Your task to perform on an android device: clear history in the chrome app Image 0: 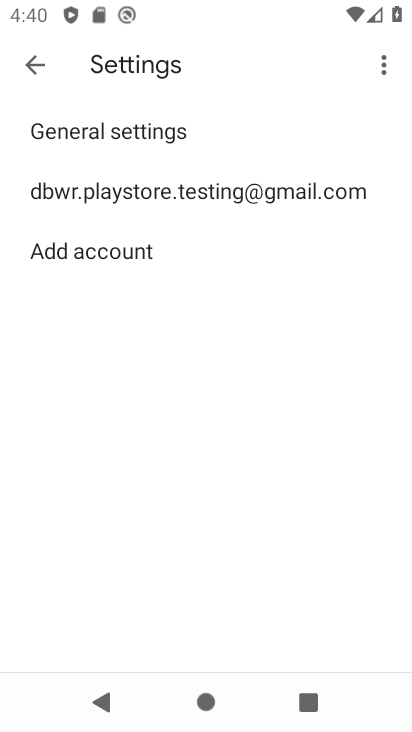
Step 0: click (382, 63)
Your task to perform on an android device: clear history in the chrome app Image 1: 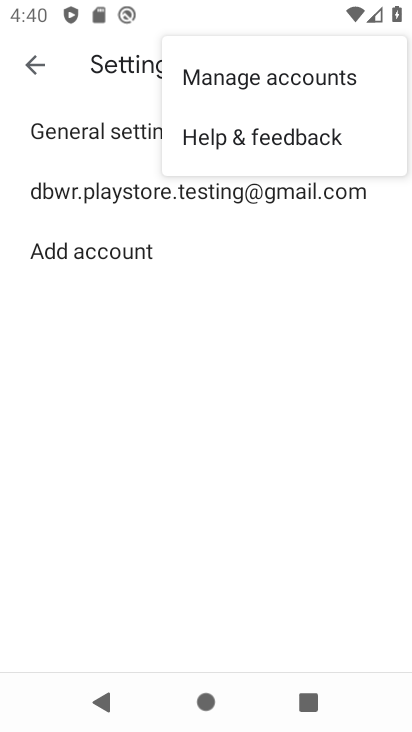
Step 1: click (301, 417)
Your task to perform on an android device: clear history in the chrome app Image 2: 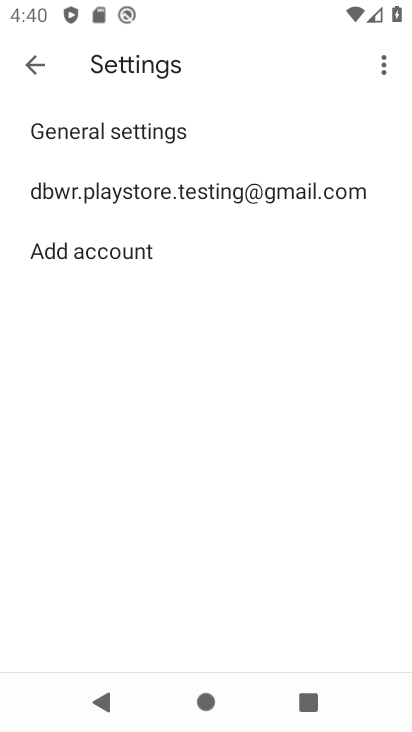
Step 2: click (31, 68)
Your task to perform on an android device: clear history in the chrome app Image 3: 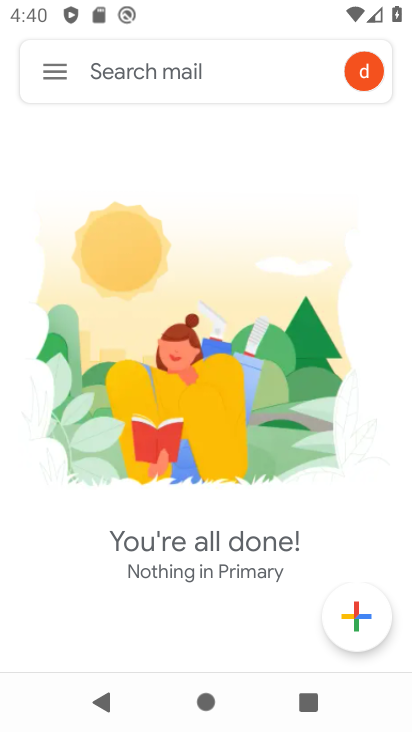
Step 3: press back button
Your task to perform on an android device: clear history in the chrome app Image 4: 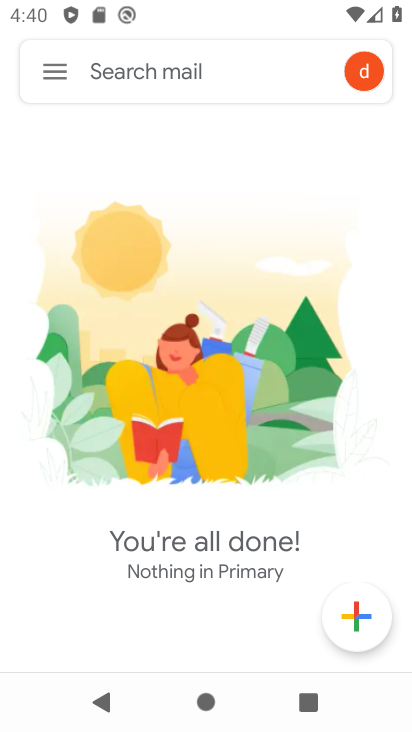
Step 4: press back button
Your task to perform on an android device: clear history in the chrome app Image 5: 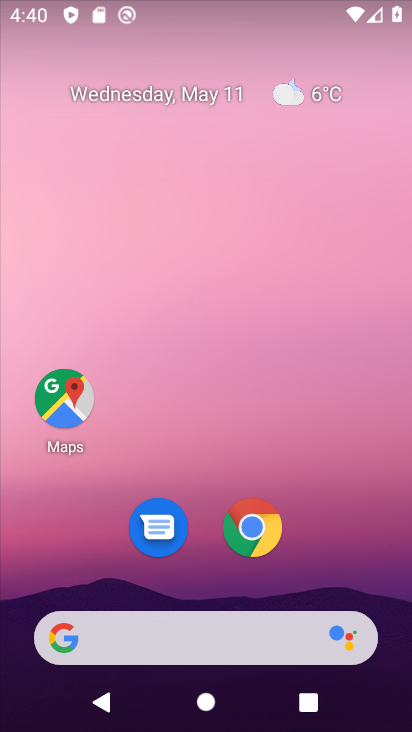
Step 5: drag from (329, 581) to (218, 168)
Your task to perform on an android device: clear history in the chrome app Image 6: 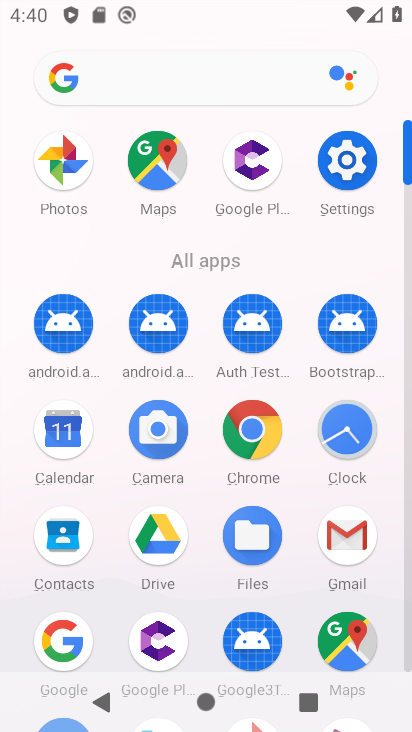
Step 6: click (246, 435)
Your task to perform on an android device: clear history in the chrome app Image 7: 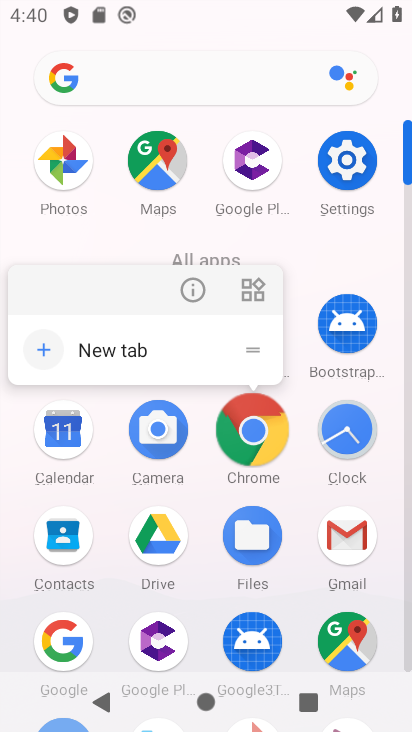
Step 7: click (250, 434)
Your task to perform on an android device: clear history in the chrome app Image 8: 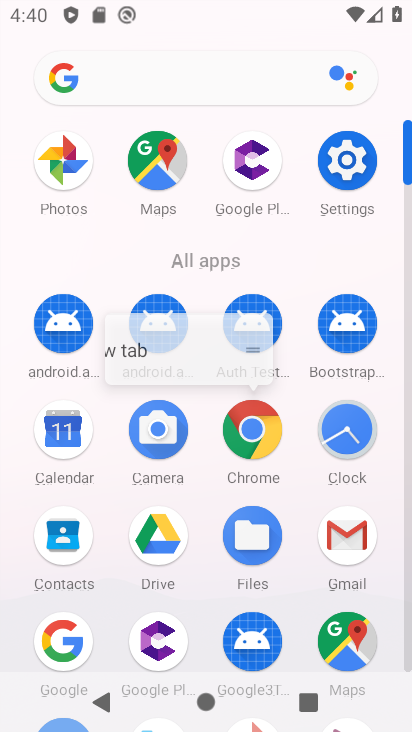
Step 8: click (259, 429)
Your task to perform on an android device: clear history in the chrome app Image 9: 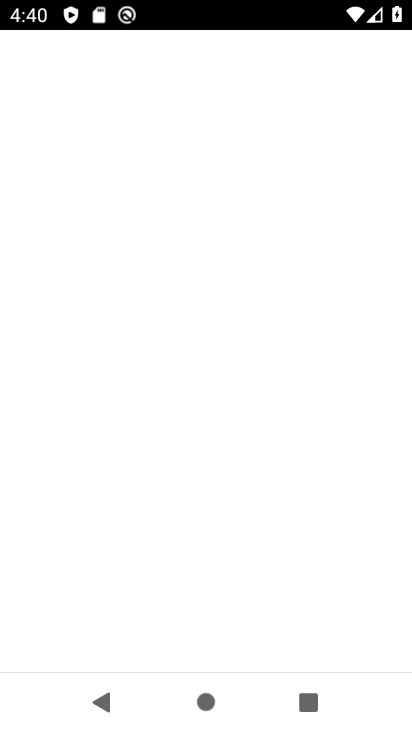
Step 9: click (259, 429)
Your task to perform on an android device: clear history in the chrome app Image 10: 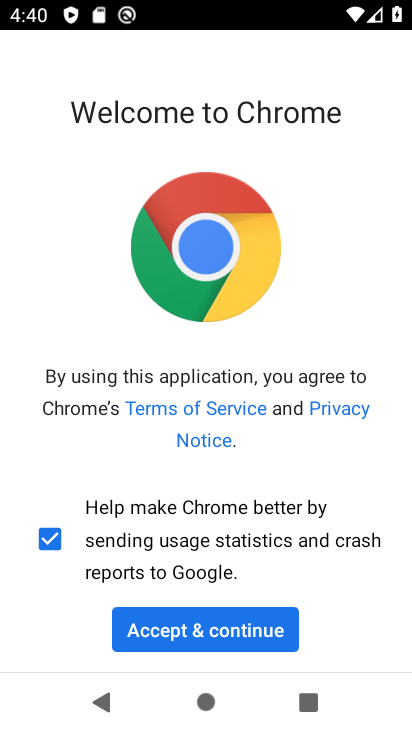
Step 10: click (227, 629)
Your task to perform on an android device: clear history in the chrome app Image 11: 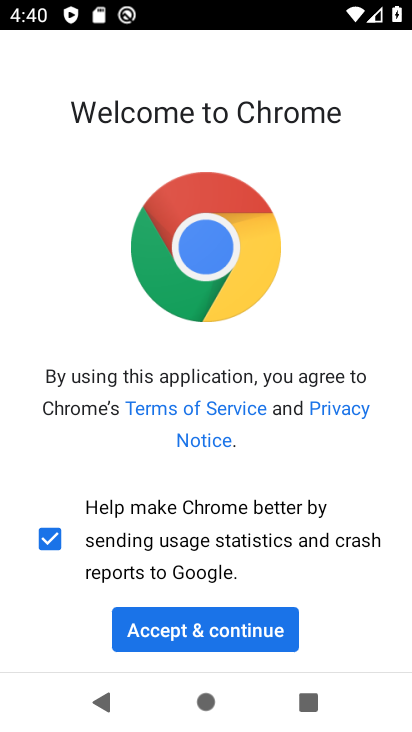
Step 11: click (223, 628)
Your task to perform on an android device: clear history in the chrome app Image 12: 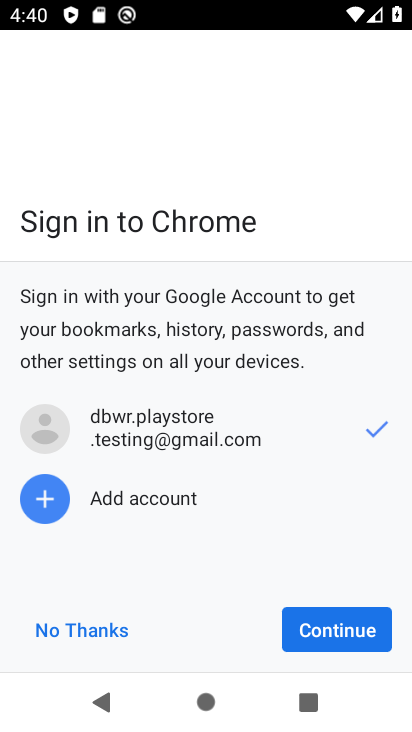
Step 12: click (224, 626)
Your task to perform on an android device: clear history in the chrome app Image 13: 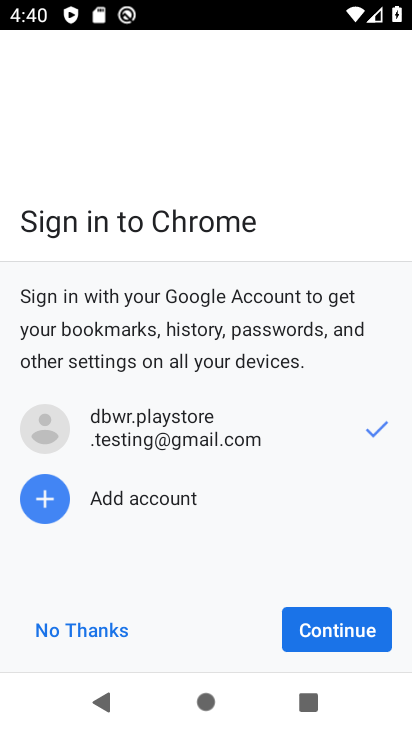
Step 13: click (225, 626)
Your task to perform on an android device: clear history in the chrome app Image 14: 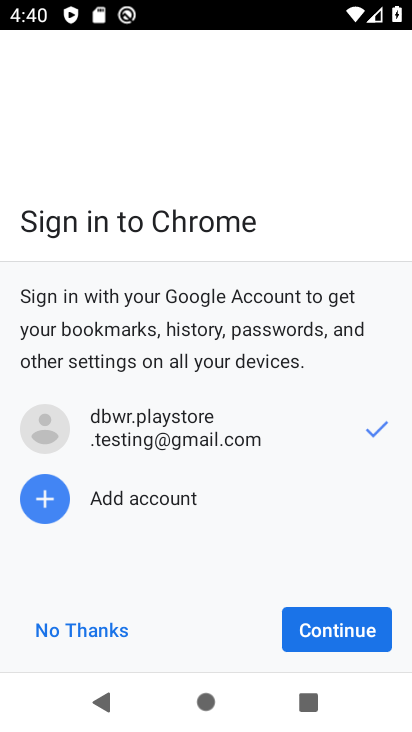
Step 14: click (348, 622)
Your task to perform on an android device: clear history in the chrome app Image 15: 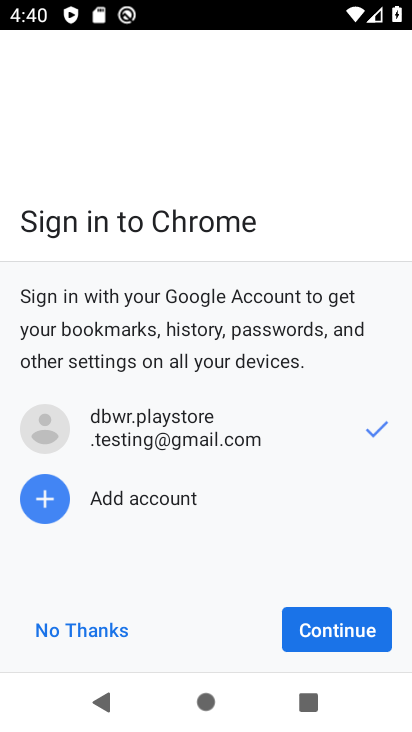
Step 15: click (349, 623)
Your task to perform on an android device: clear history in the chrome app Image 16: 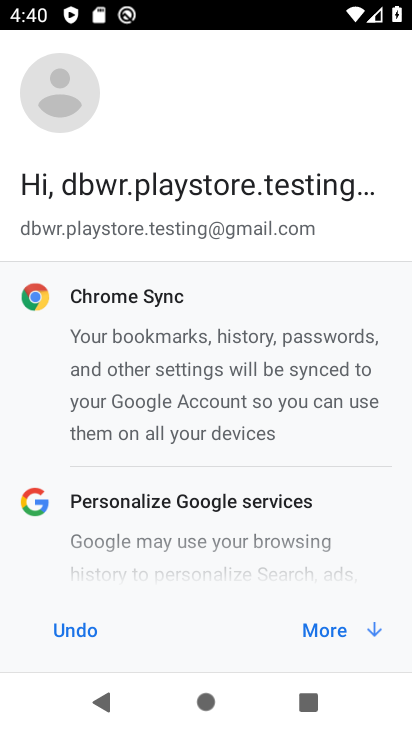
Step 16: click (351, 627)
Your task to perform on an android device: clear history in the chrome app Image 17: 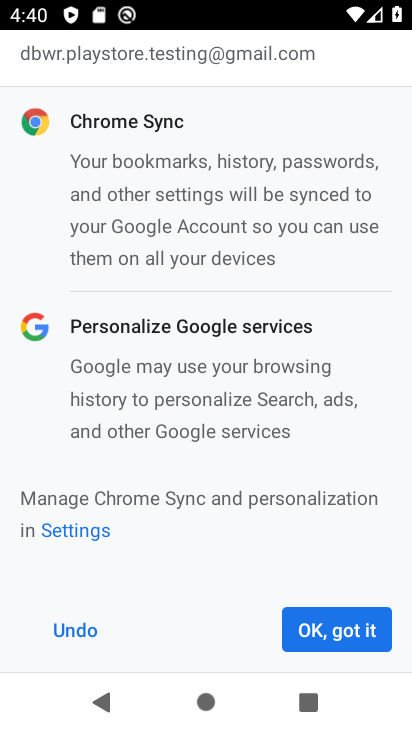
Step 17: click (351, 627)
Your task to perform on an android device: clear history in the chrome app Image 18: 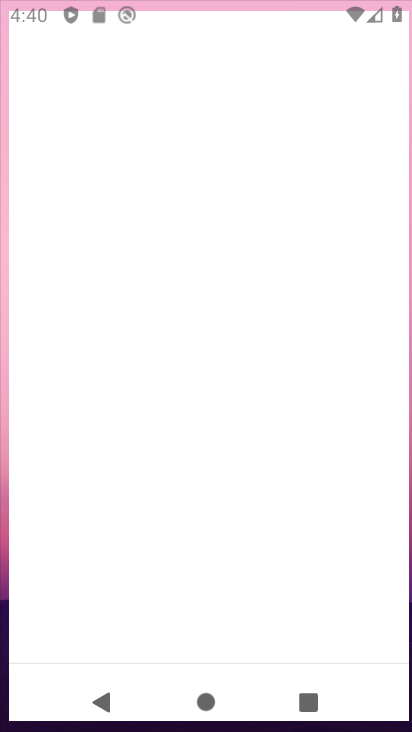
Step 18: click (349, 622)
Your task to perform on an android device: clear history in the chrome app Image 19: 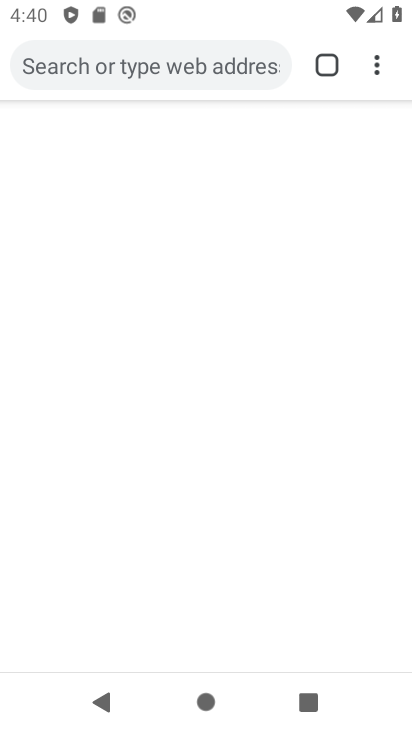
Step 19: click (350, 625)
Your task to perform on an android device: clear history in the chrome app Image 20: 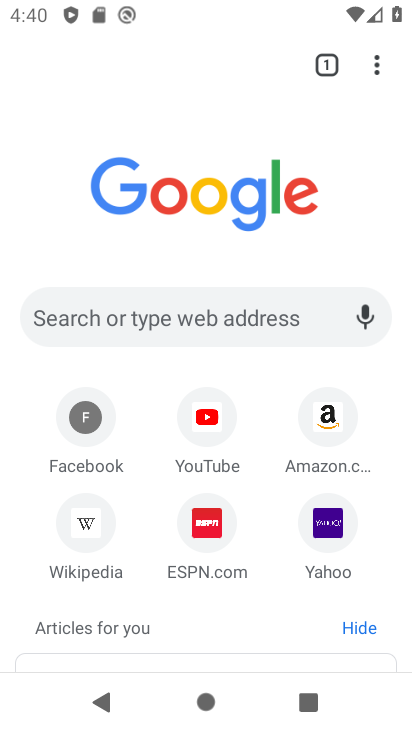
Step 20: drag from (370, 62) to (132, 367)
Your task to perform on an android device: clear history in the chrome app Image 21: 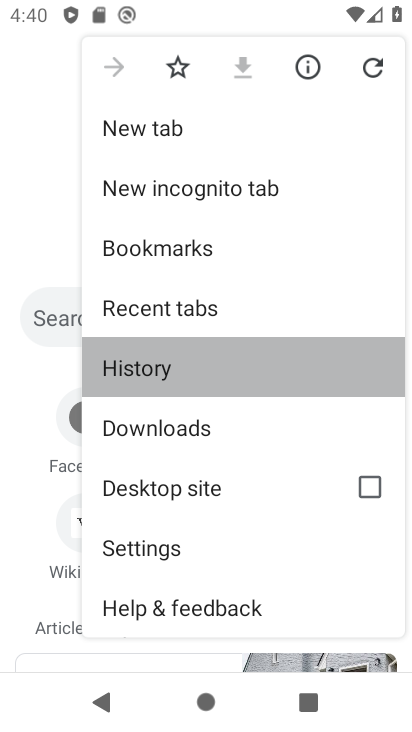
Step 21: click (132, 367)
Your task to perform on an android device: clear history in the chrome app Image 22: 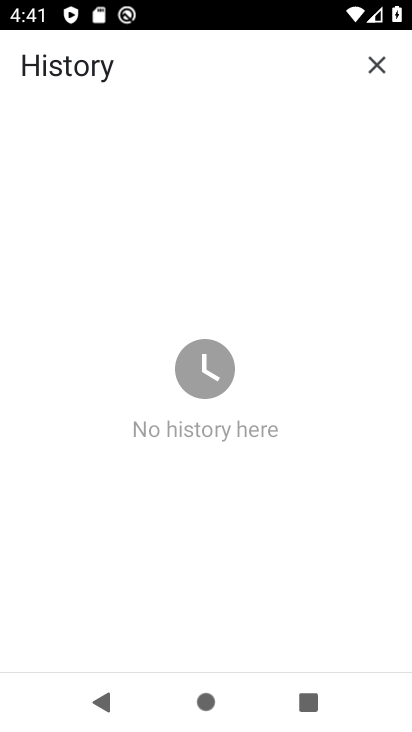
Step 22: task complete